Your task to perform on an android device: turn notification dots off Image 0: 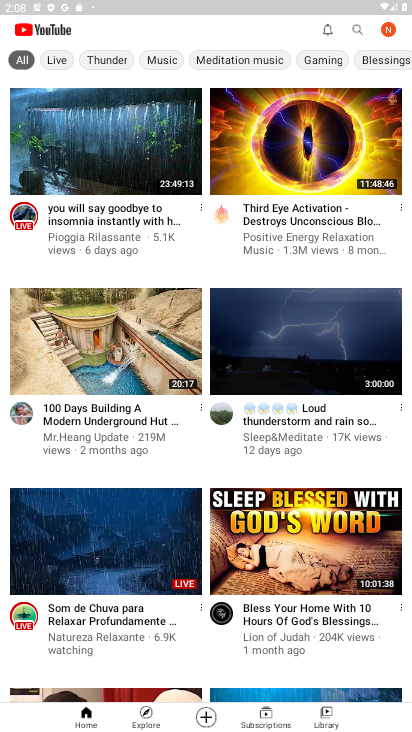
Step 0: press home button
Your task to perform on an android device: turn notification dots off Image 1: 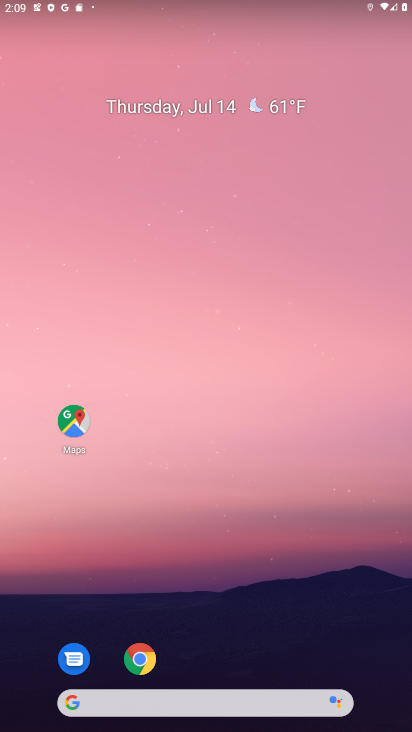
Step 1: drag from (227, 670) to (164, 153)
Your task to perform on an android device: turn notification dots off Image 2: 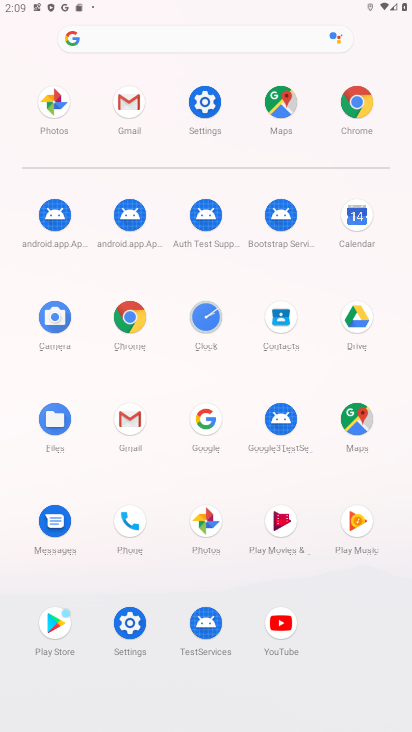
Step 2: click (136, 629)
Your task to perform on an android device: turn notification dots off Image 3: 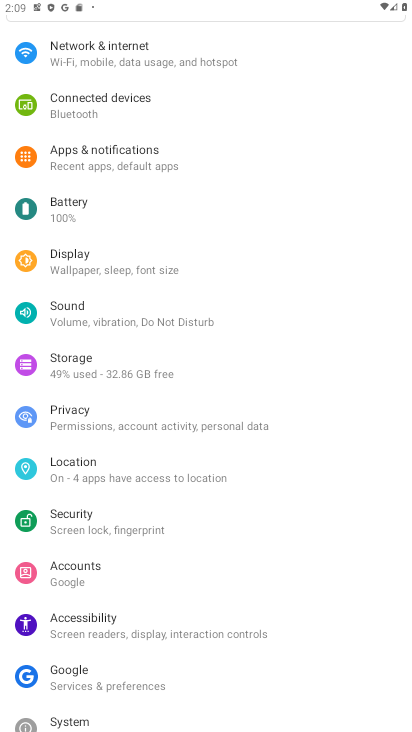
Step 3: click (104, 171)
Your task to perform on an android device: turn notification dots off Image 4: 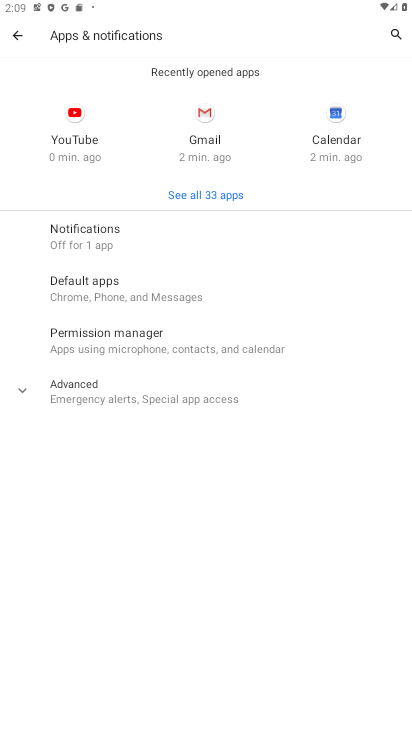
Step 4: click (107, 228)
Your task to perform on an android device: turn notification dots off Image 5: 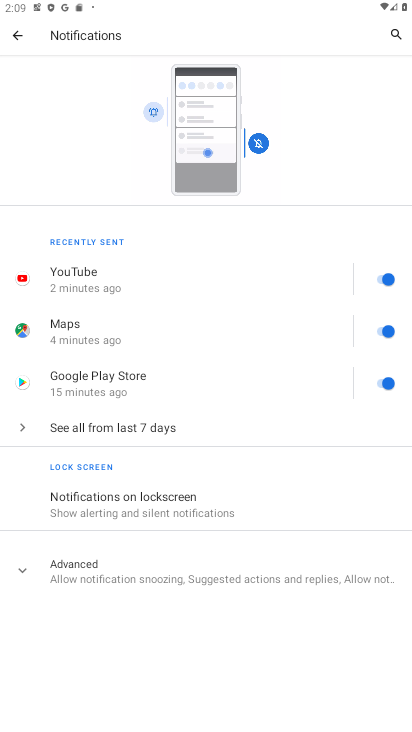
Step 5: click (124, 580)
Your task to perform on an android device: turn notification dots off Image 6: 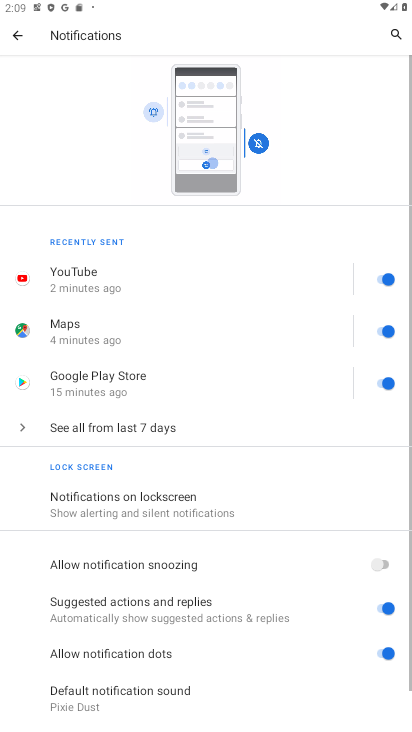
Step 6: drag from (124, 580) to (91, 378)
Your task to perform on an android device: turn notification dots off Image 7: 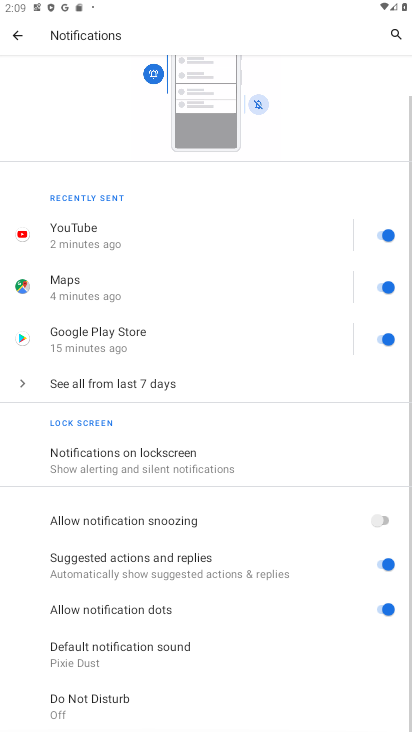
Step 7: click (383, 616)
Your task to perform on an android device: turn notification dots off Image 8: 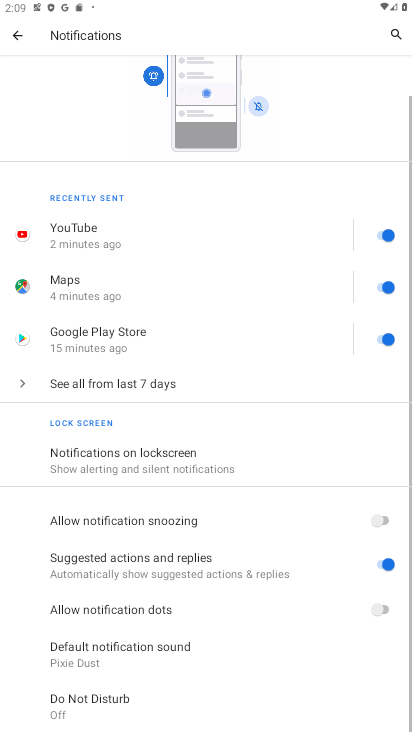
Step 8: task complete